Your task to perform on an android device: turn vacation reply on in the gmail app Image 0: 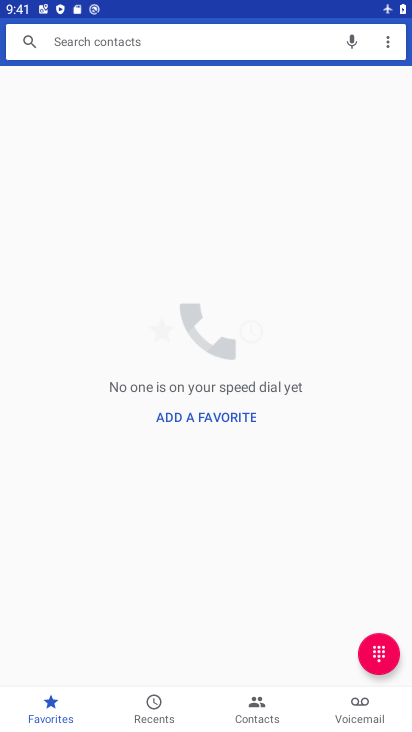
Step 0: press home button
Your task to perform on an android device: turn vacation reply on in the gmail app Image 1: 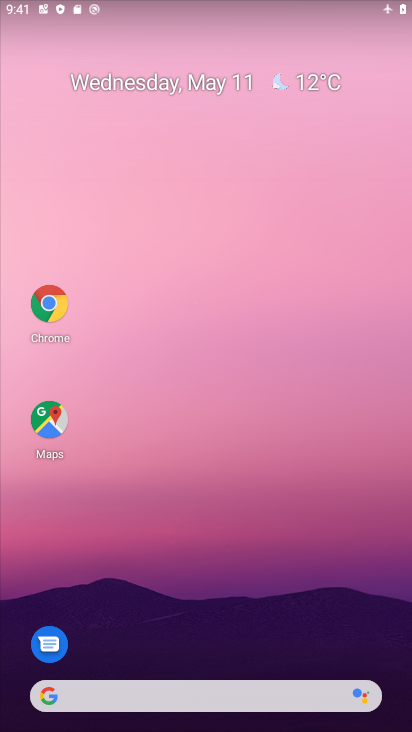
Step 1: drag from (163, 609) to (183, 148)
Your task to perform on an android device: turn vacation reply on in the gmail app Image 2: 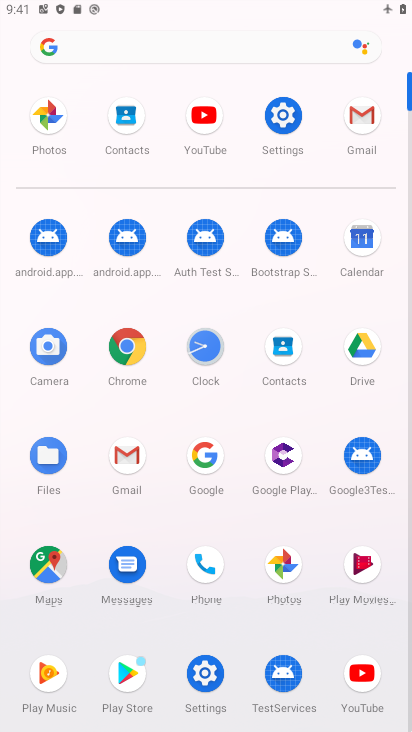
Step 2: click (363, 118)
Your task to perform on an android device: turn vacation reply on in the gmail app Image 3: 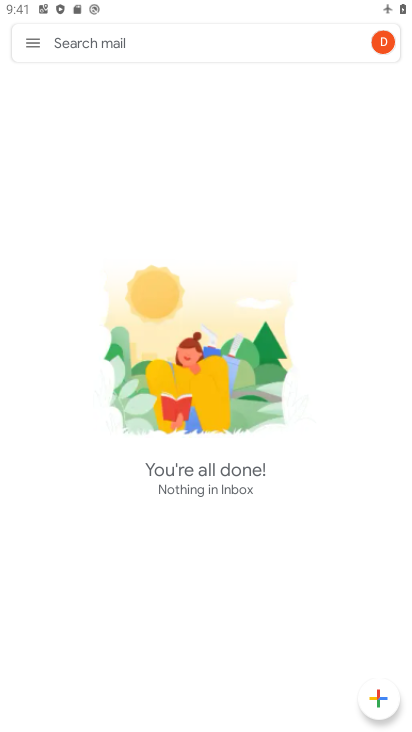
Step 3: click (27, 42)
Your task to perform on an android device: turn vacation reply on in the gmail app Image 4: 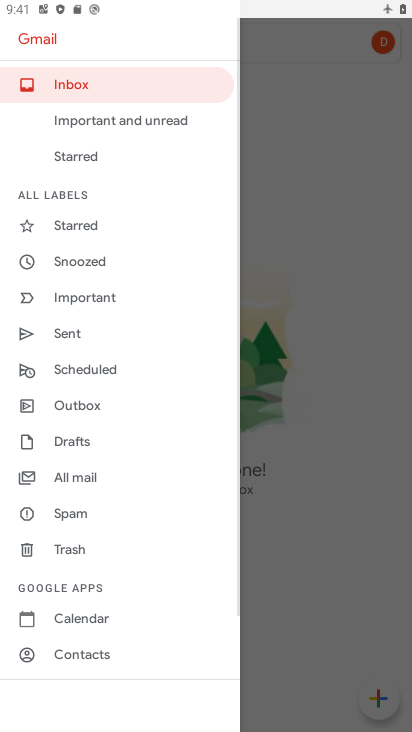
Step 4: click (104, 697)
Your task to perform on an android device: turn vacation reply on in the gmail app Image 5: 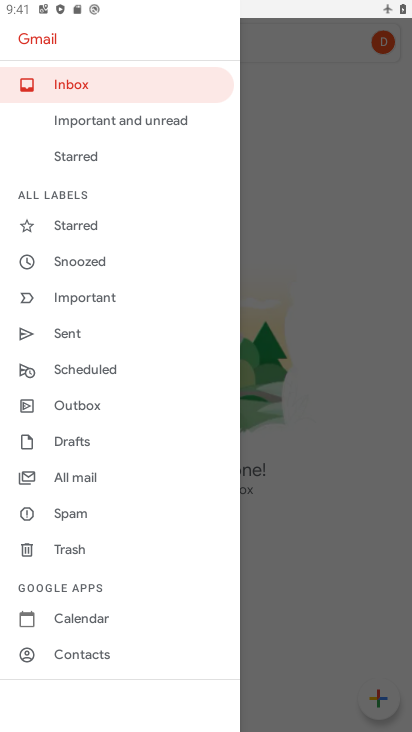
Step 5: drag from (104, 697) to (91, 568)
Your task to perform on an android device: turn vacation reply on in the gmail app Image 6: 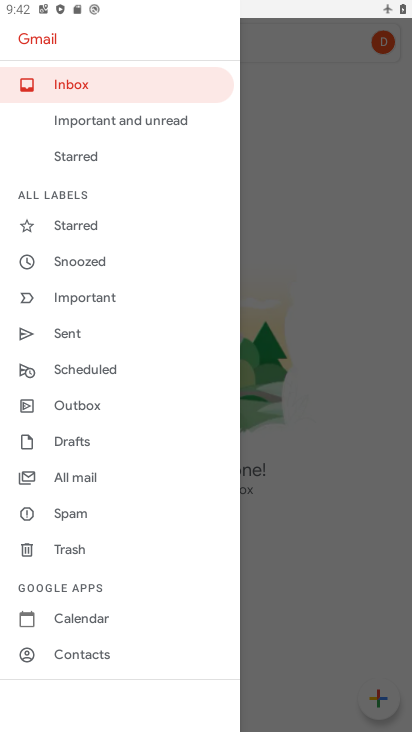
Step 6: drag from (143, 630) to (150, 449)
Your task to perform on an android device: turn vacation reply on in the gmail app Image 7: 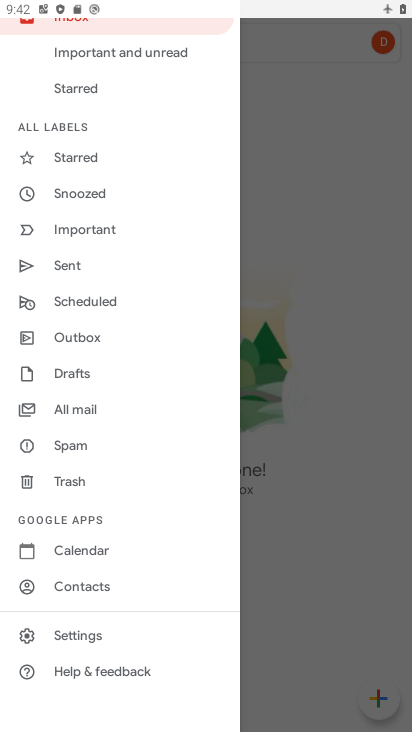
Step 7: click (74, 639)
Your task to perform on an android device: turn vacation reply on in the gmail app Image 8: 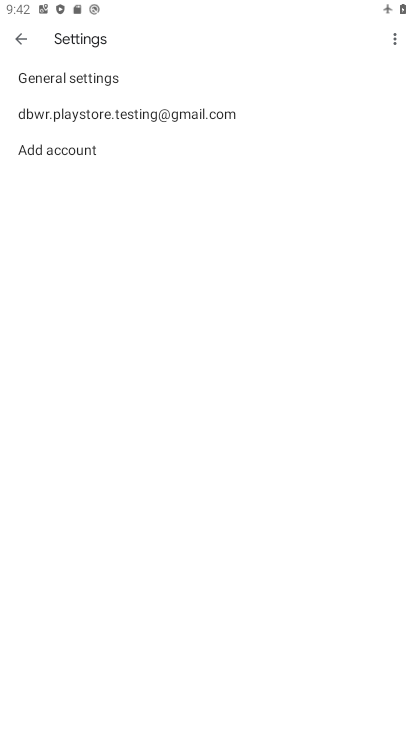
Step 8: click (101, 114)
Your task to perform on an android device: turn vacation reply on in the gmail app Image 9: 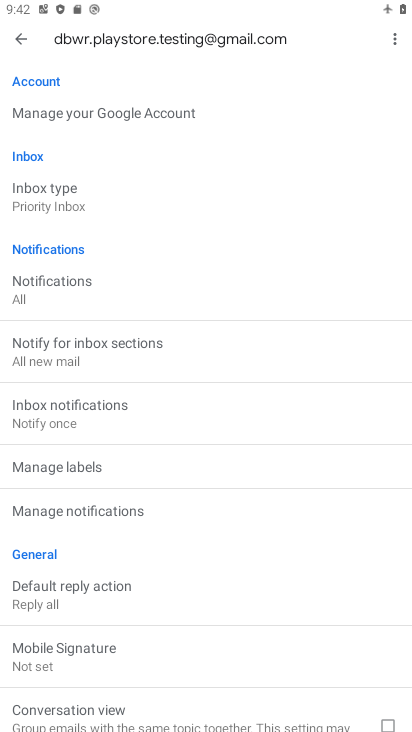
Step 9: drag from (104, 592) to (174, 200)
Your task to perform on an android device: turn vacation reply on in the gmail app Image 10: 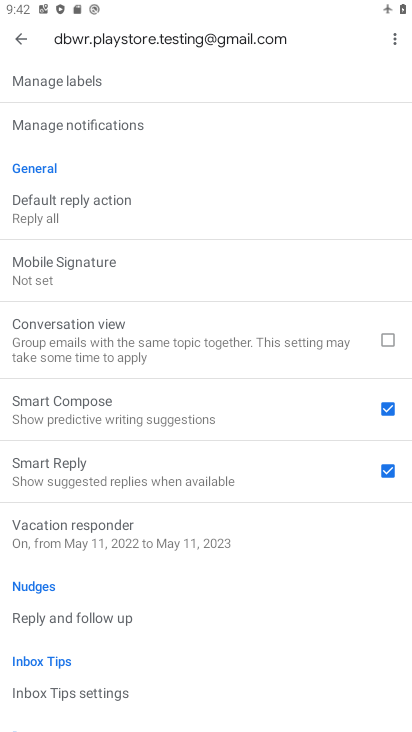
Step 10: click (88, 537)
Your task to perform on an android device: turn vacation reply on in the gmail app Image 11: 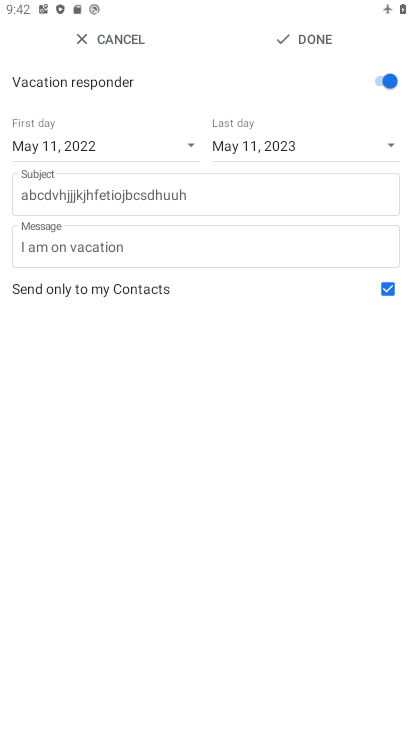
Step 11: task complete